Your task to perform on an android device: When is my next meeting? Image 0: 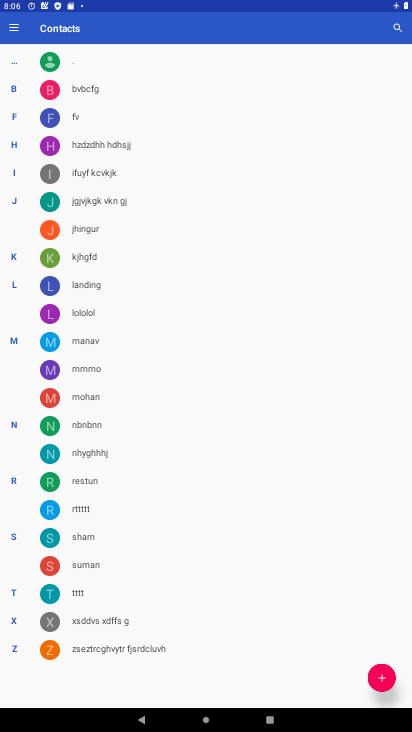
Step 0: press home button
Your task to perform on an android device: When is my next meeting? Image 1: 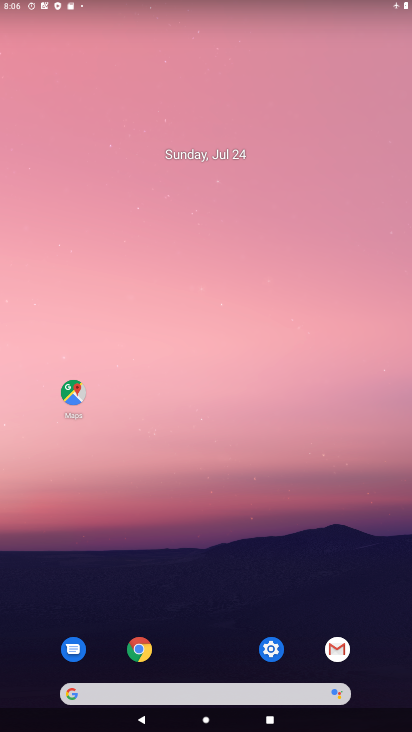
Step 1: drag from (285, 705) to (233, 102)
Your task to perform on an android device: When is my next meeting? Image 2: 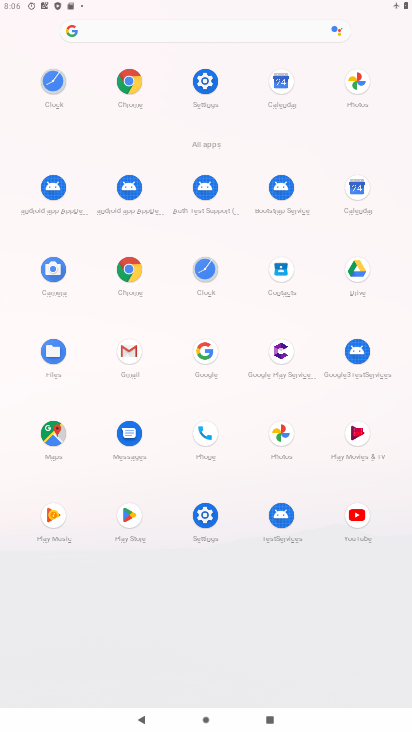
Step 2: click (290, 86)
Your task to perform on an android device: When is my next meeting? Image 3: 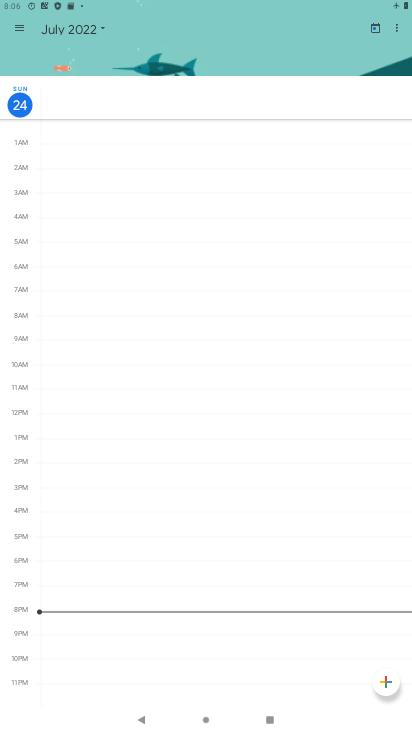
Step 3: click (26, 27)
Your task to perform on an android device: When is my next meeting? Image 4: 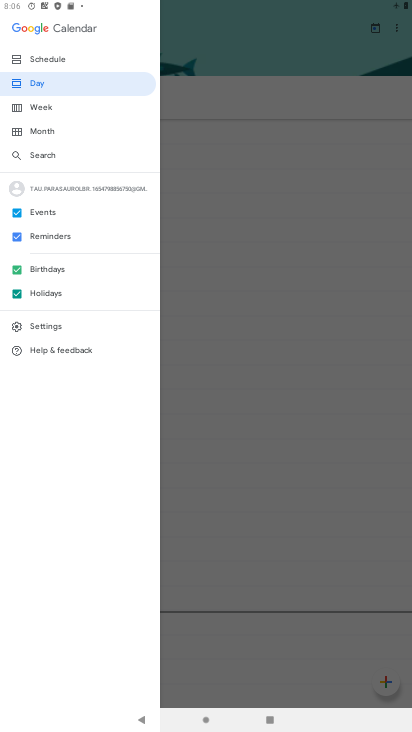
Step 4: click (45, 62)
Your task to perform on an android device: When is my next meeting? Image 5: 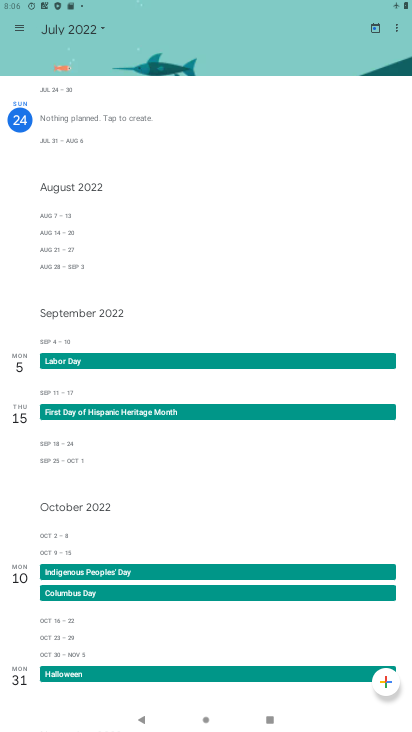
Step 5: task complete